Your task to perform on an android device: uninstall "ColorNote Notepad Notes" Image 0: 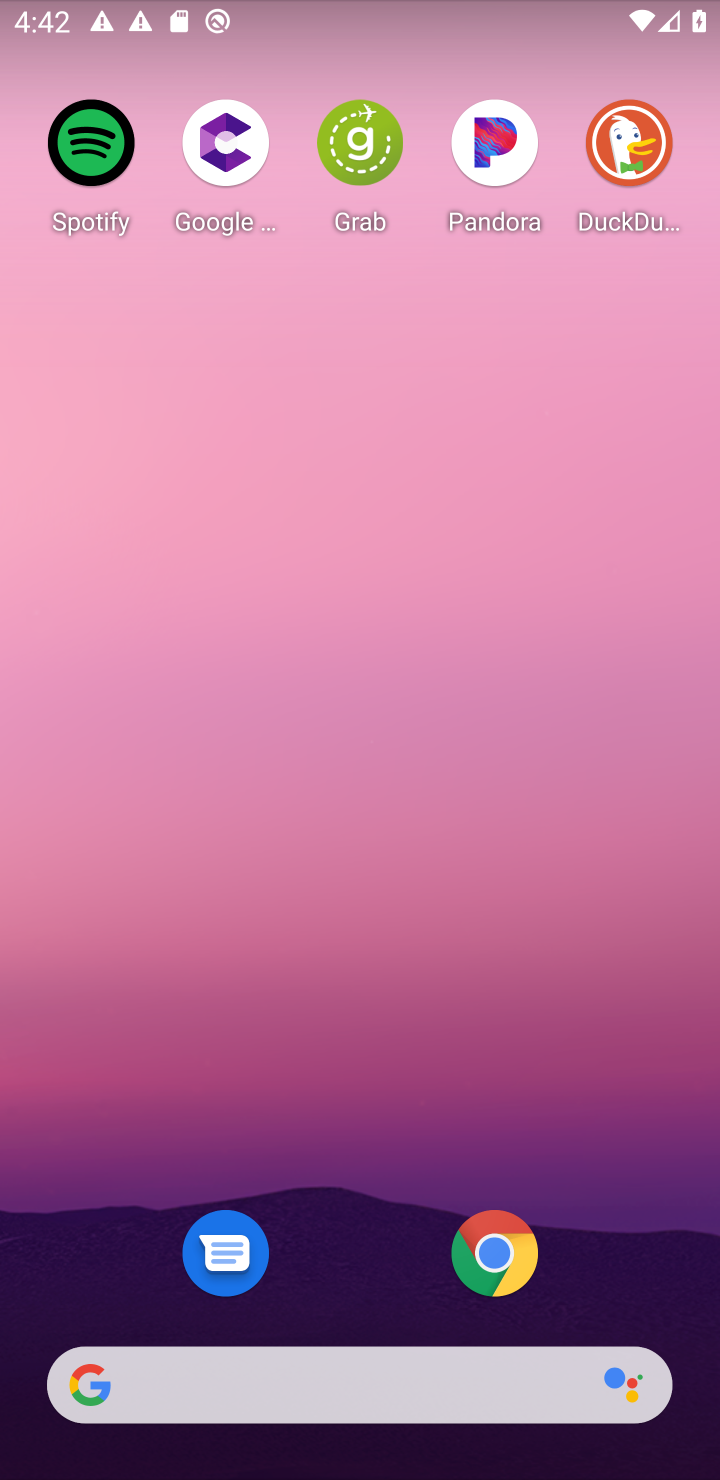
Step 0: drag from (329, 933) to (464, 158)
Your task to perform on an android device: uninstall "ColorNote Notepad Notes" Image 1: 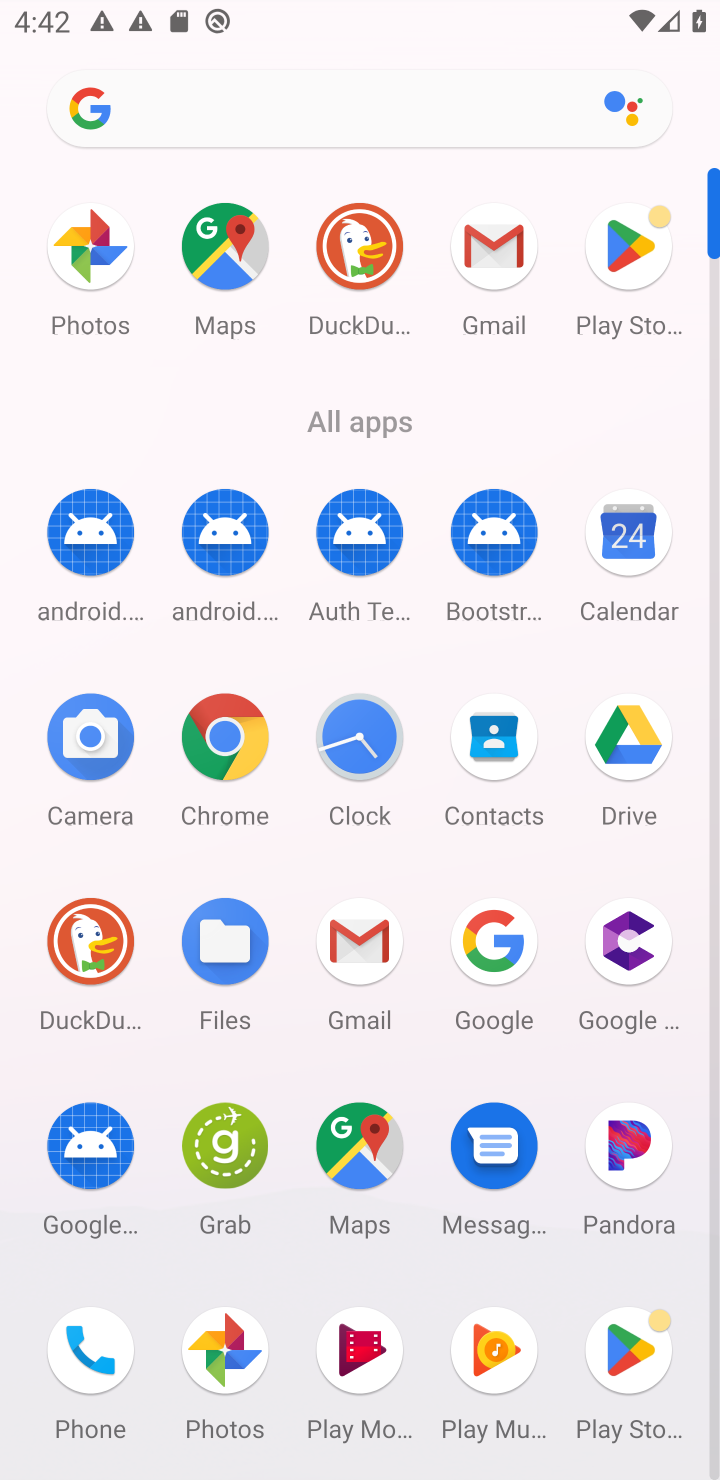
Step 1: click (624, 269)
Your task to perform on an android device: uninstall "ColorNote Notepad Notes" Image 2: 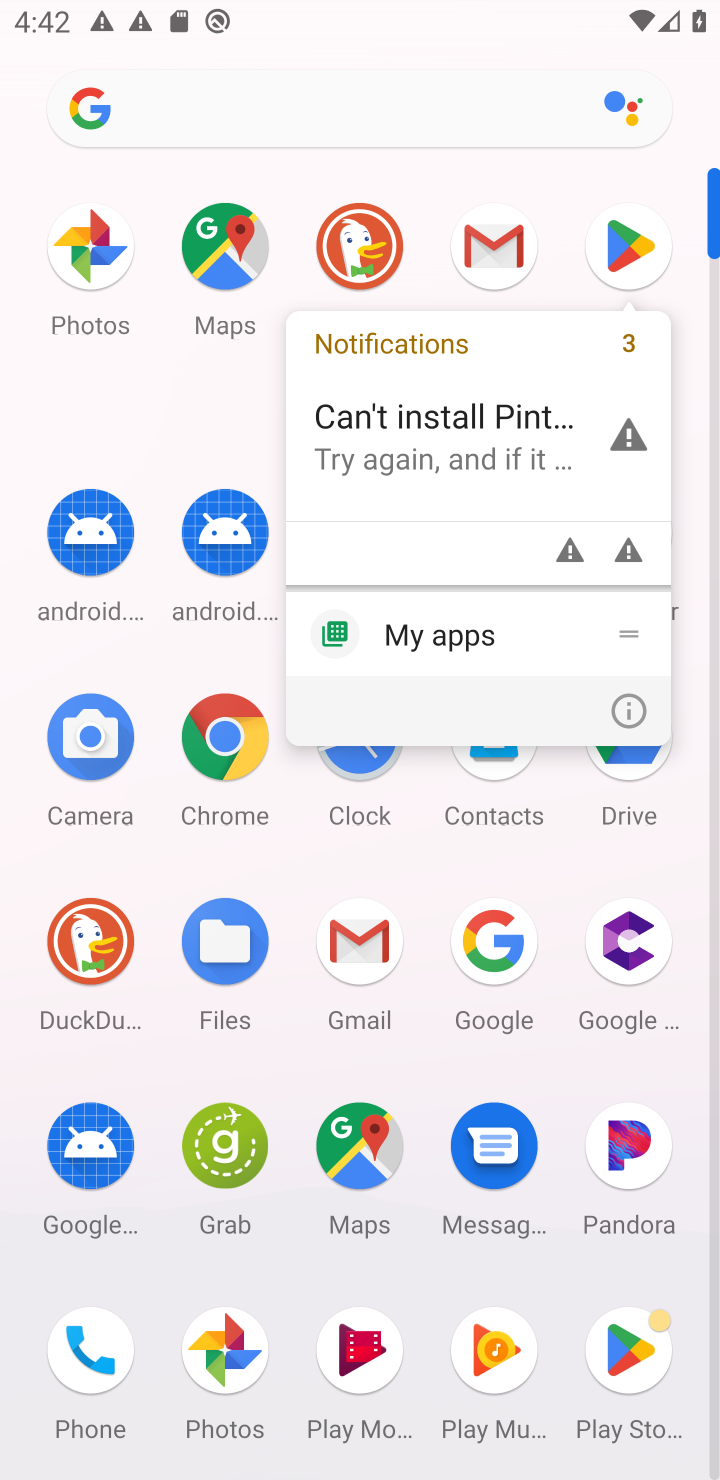
Step 2: click (618, 251)
Your task to perform on an android device: uninstall "ColorNote Notepad Notes" Image 3: 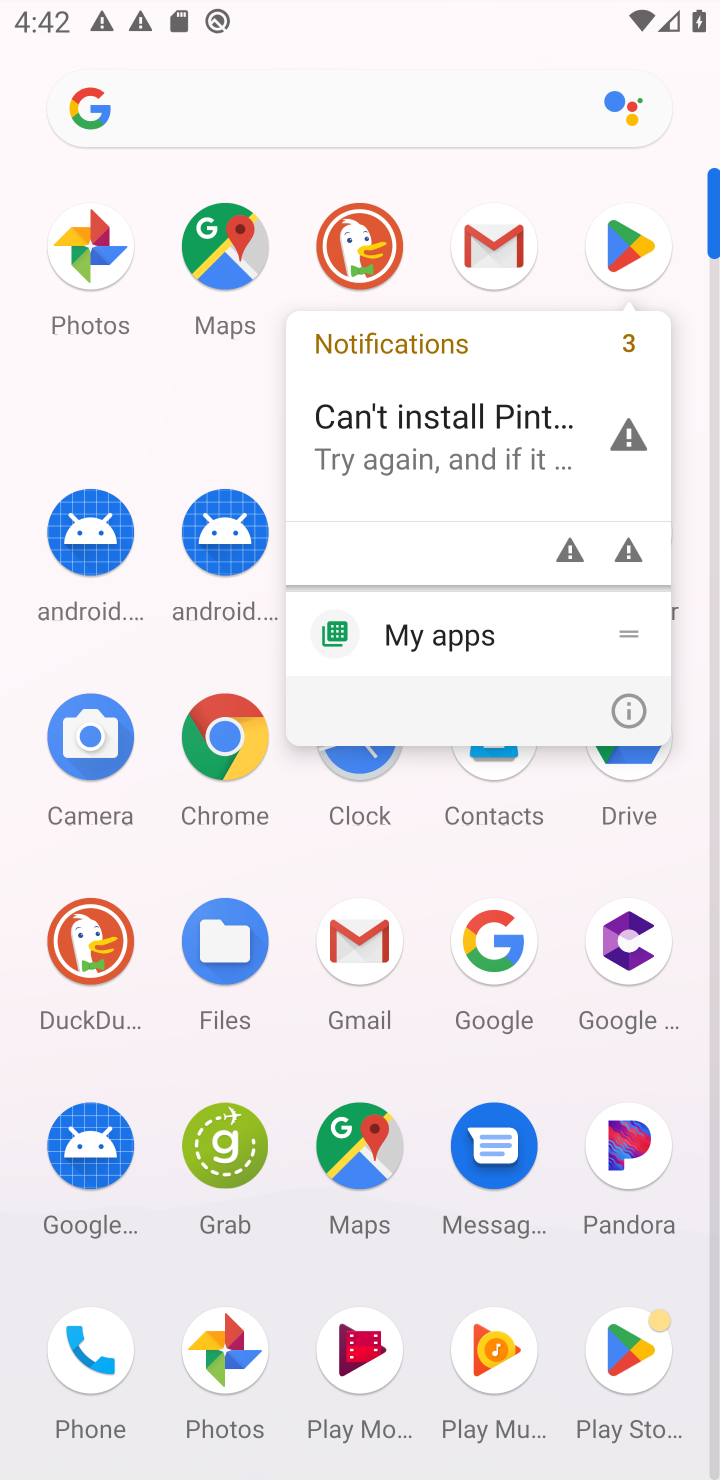
Step 3: click (636, 249)
Your task to perform on an android device: uninstall "ColorNote Notepad Notes" Image 4: 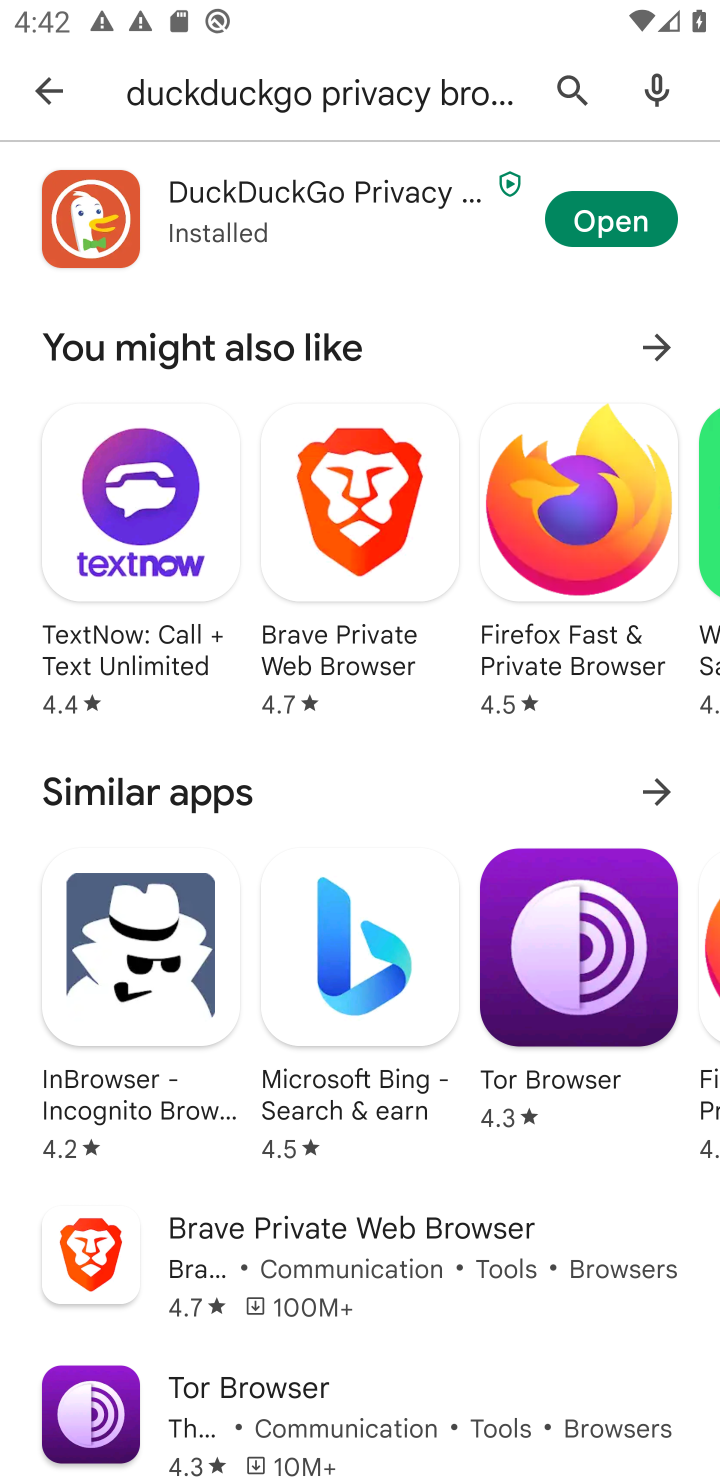
Step 4: click (578, 89)
Your task to perform on an android device: uninstall "ColorNote Notepad Notes" Image 5: 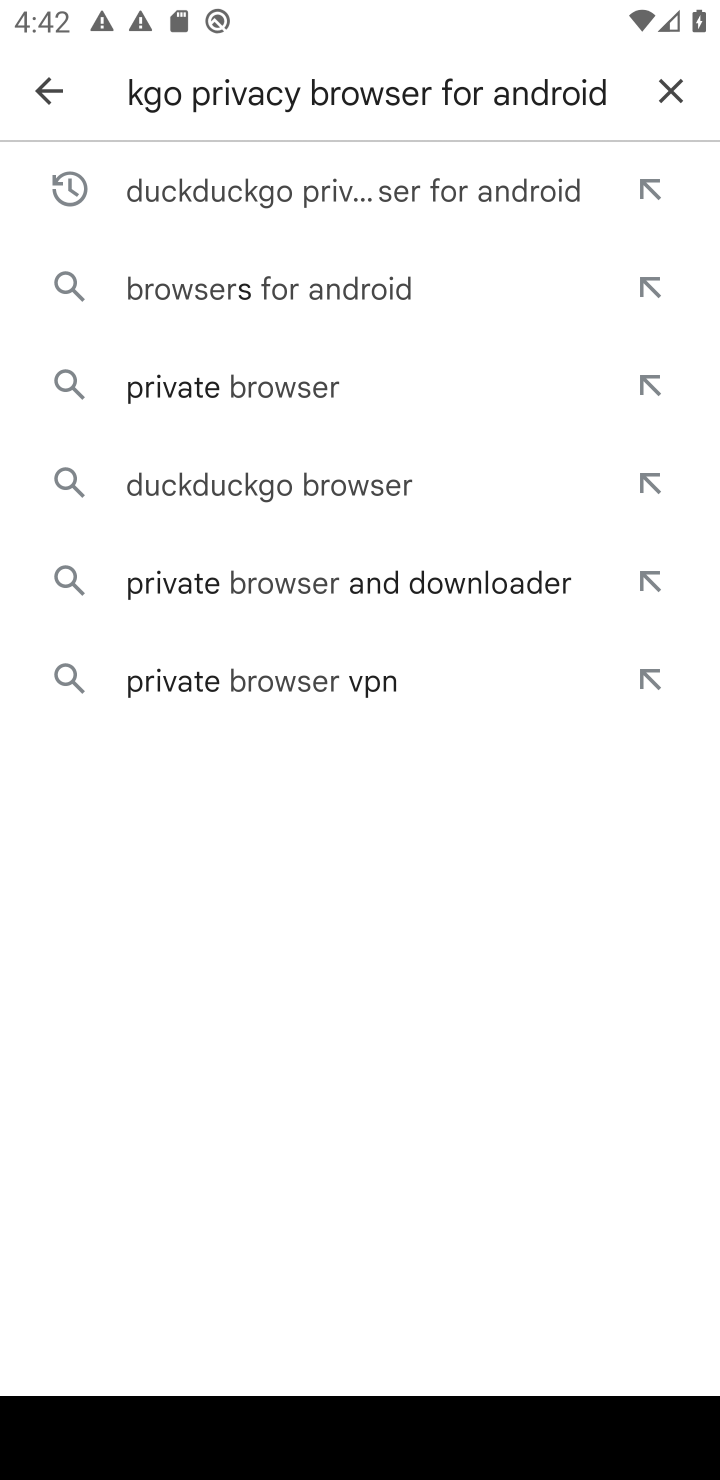
Step 5: click (664, 87)
Your task to perform on an android device: uninstall "ColorNote Notepad Notes" Image 6: 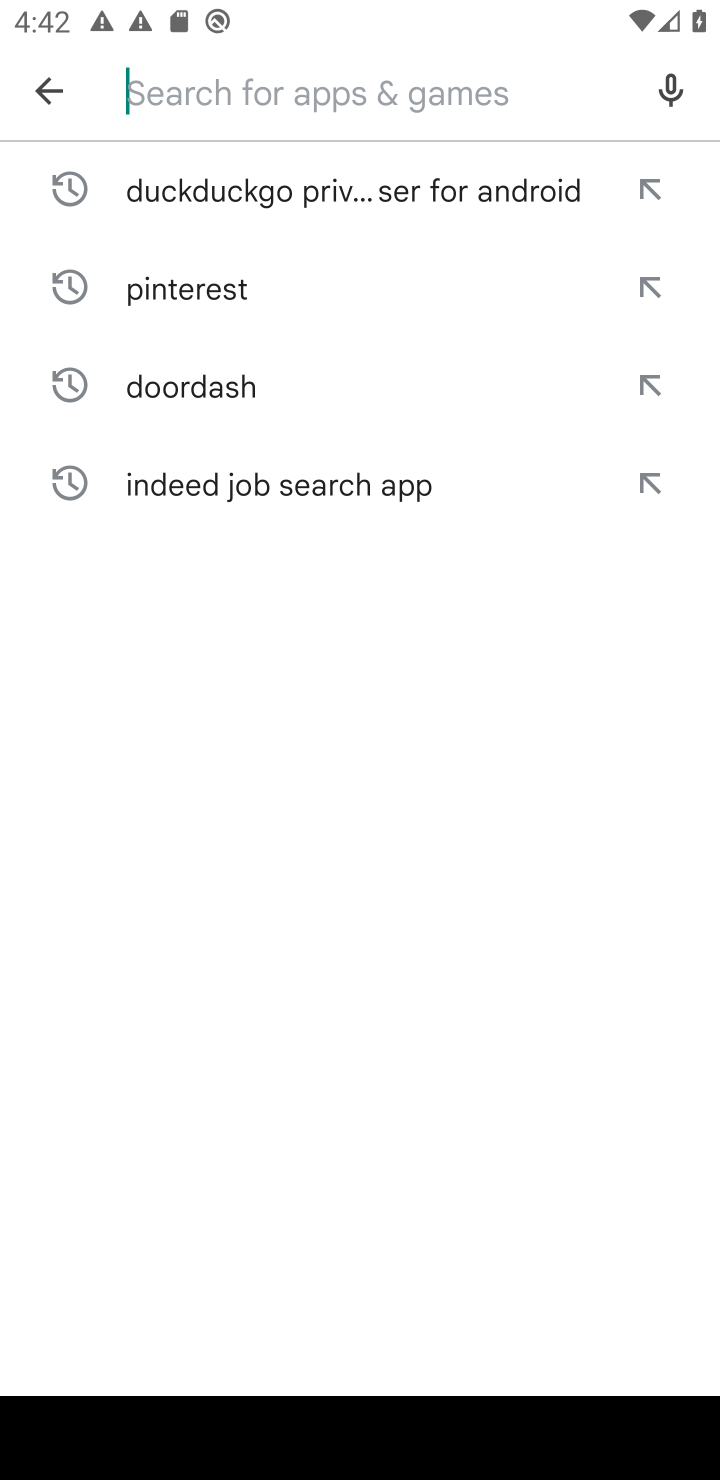
Step 6: click (212, 89)
Your task to perform on an android device: uninstall "ColorNote Notepad Notes" Image 7: 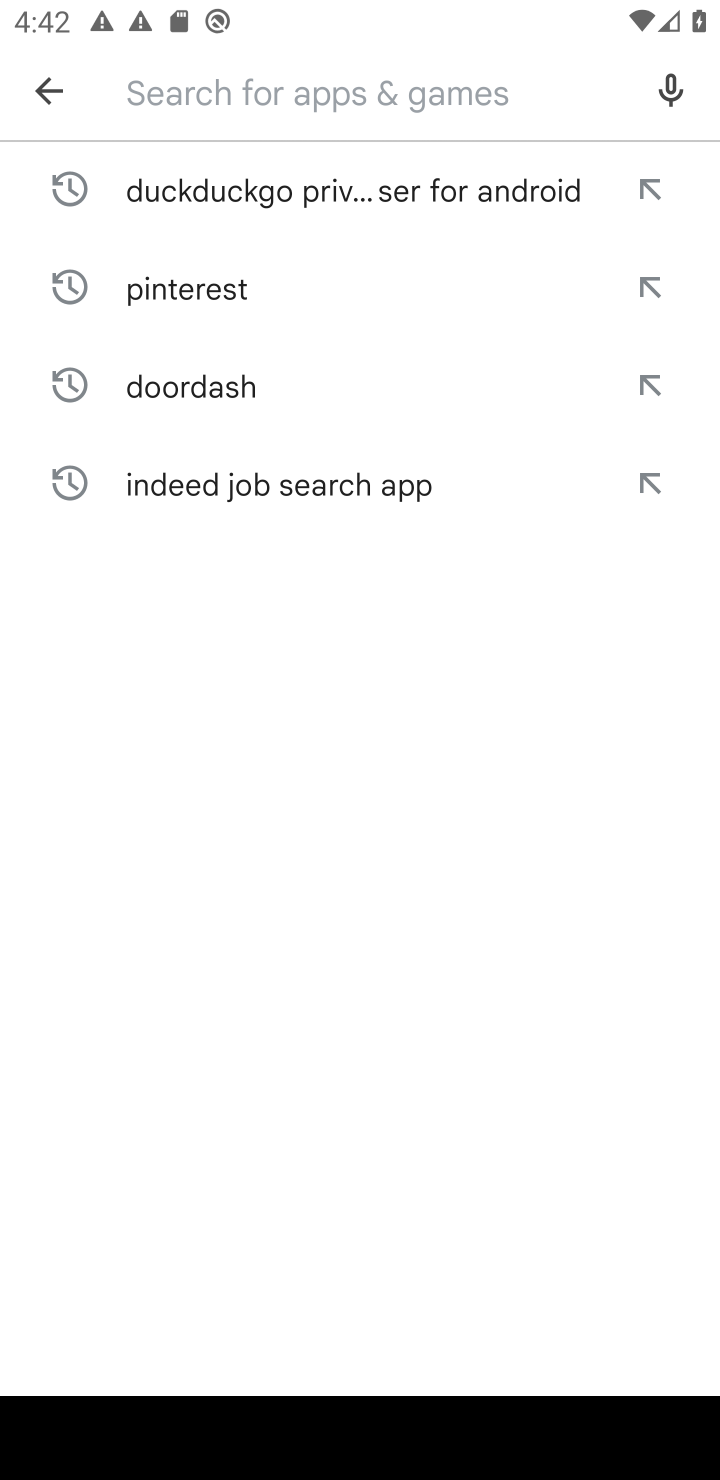
Step 7: type "ColorNote Notepad Notes"
Your task to perform on an android device: uninstall "ColorNote Notepad Notes" Image 8: 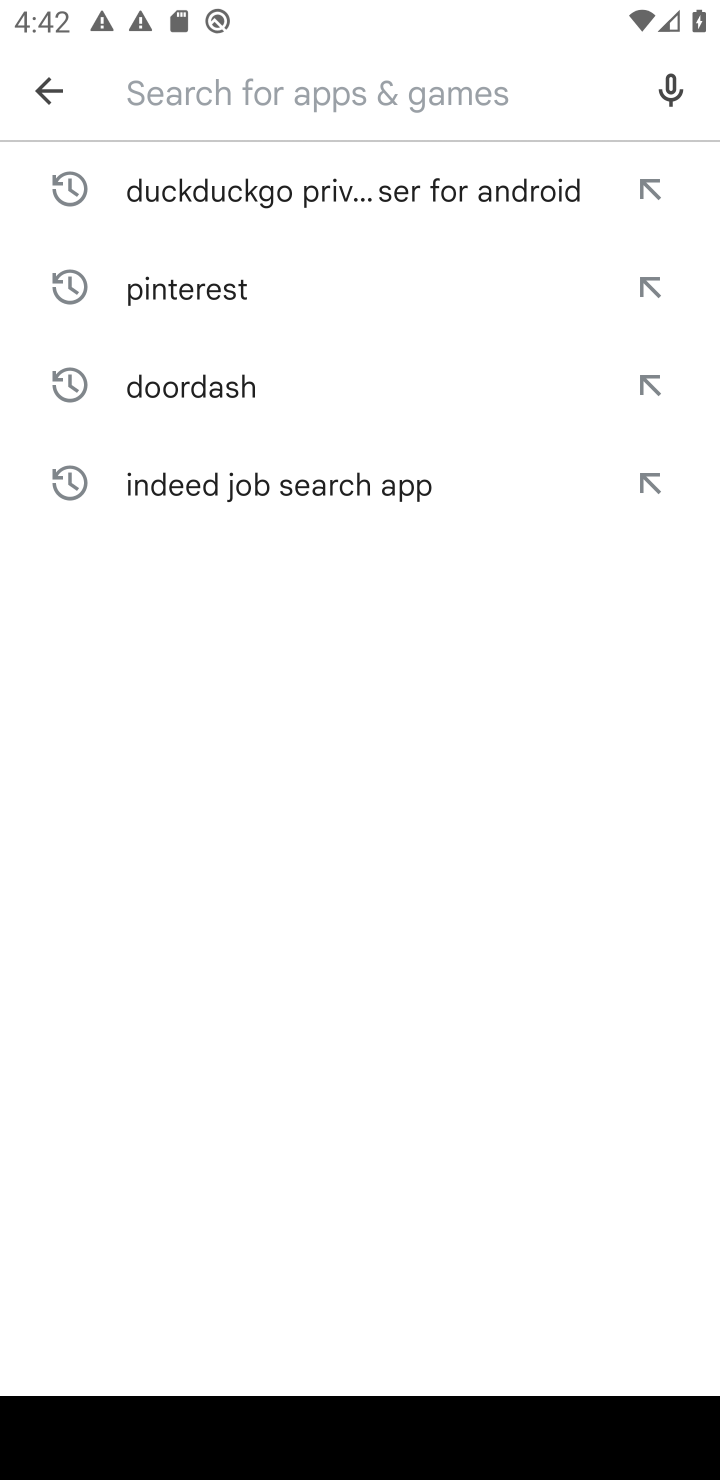
Step 8: click (223, 1116)
Your task to perform on an android device: uninstall "ColorNote Notepad Notes" Image 9: 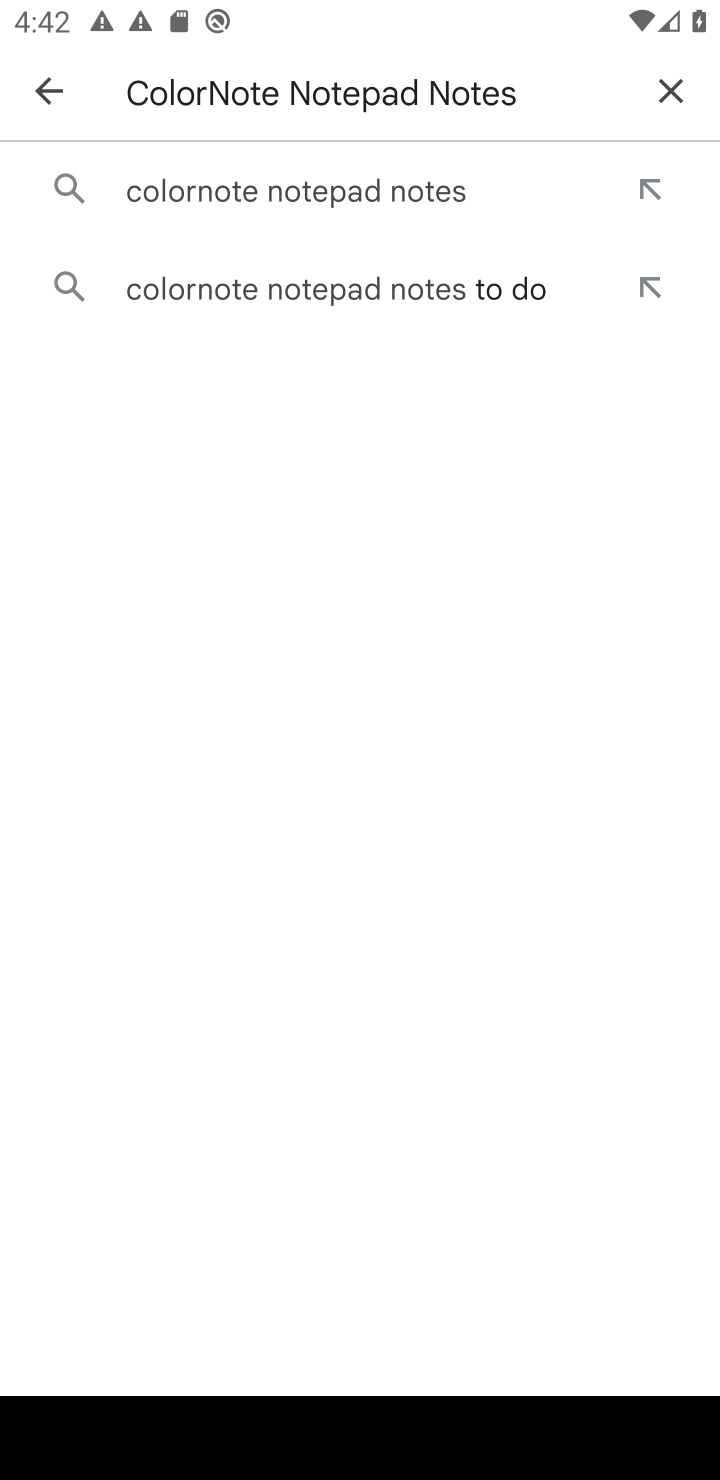
Step 9: click (372, 205)
Your task to perform on an android device: uninstall "ColorNote Notepad Notes" Image 10: 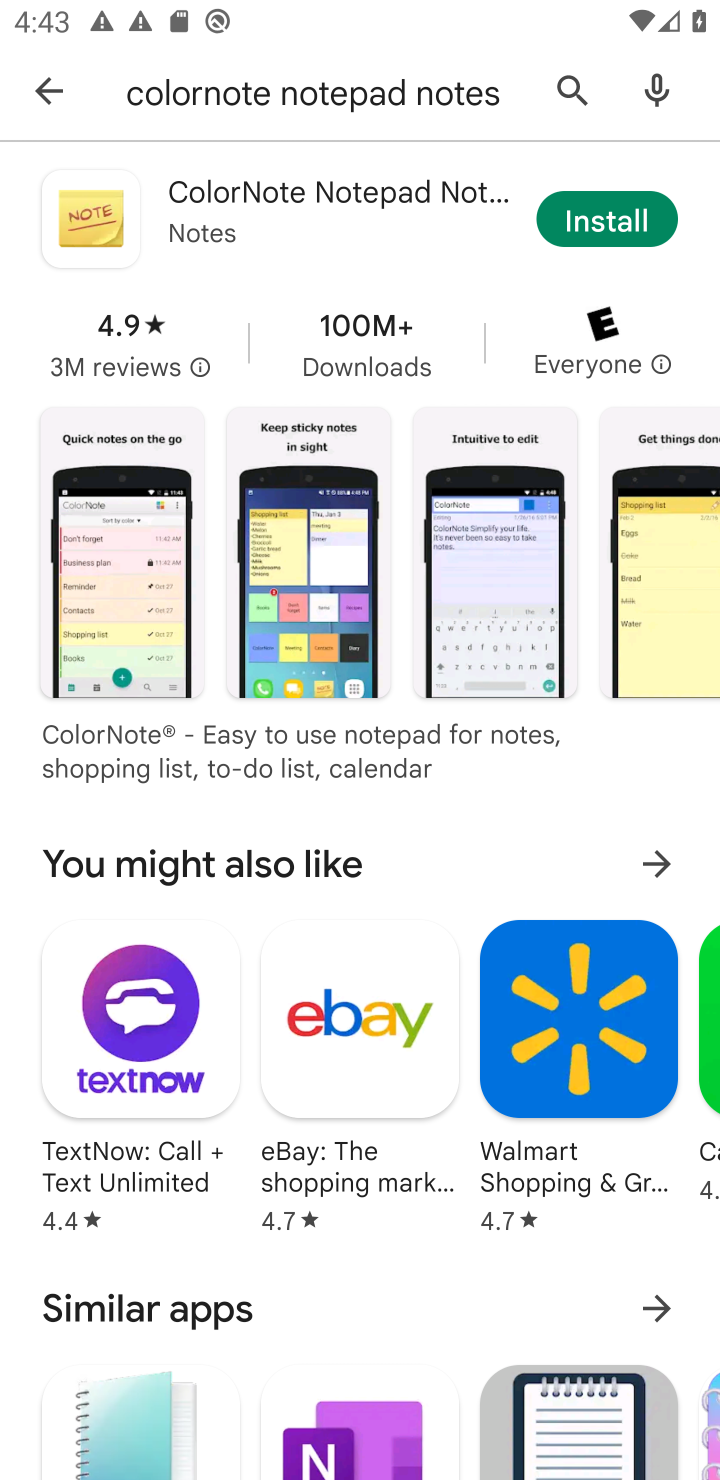
Step 10: click (326, 216)
Your task to perform on an android device: uninstall "ColorNote Notepad Notes" Image 11: 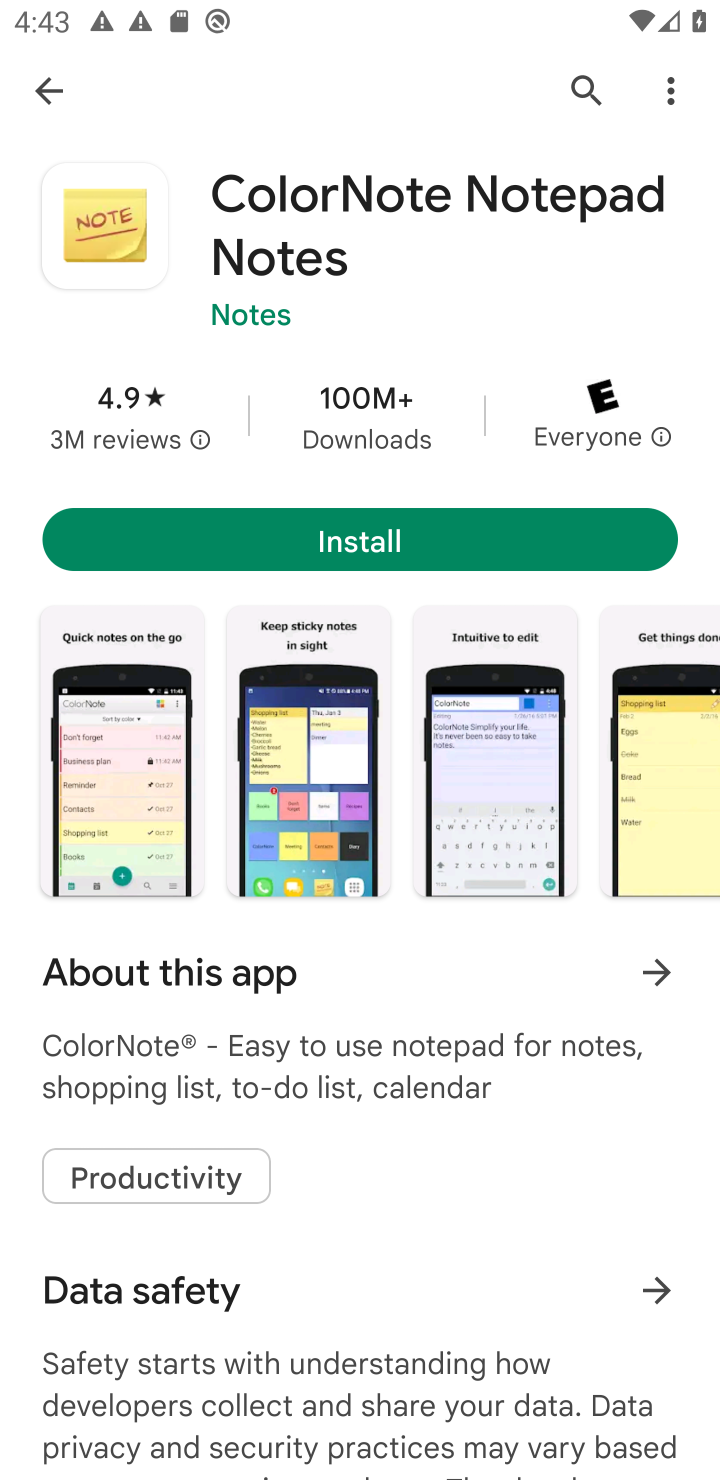
Step 11: task complete